Your task to perform on an android device: Search for flights from Helsinki to Tokyo Image 0: 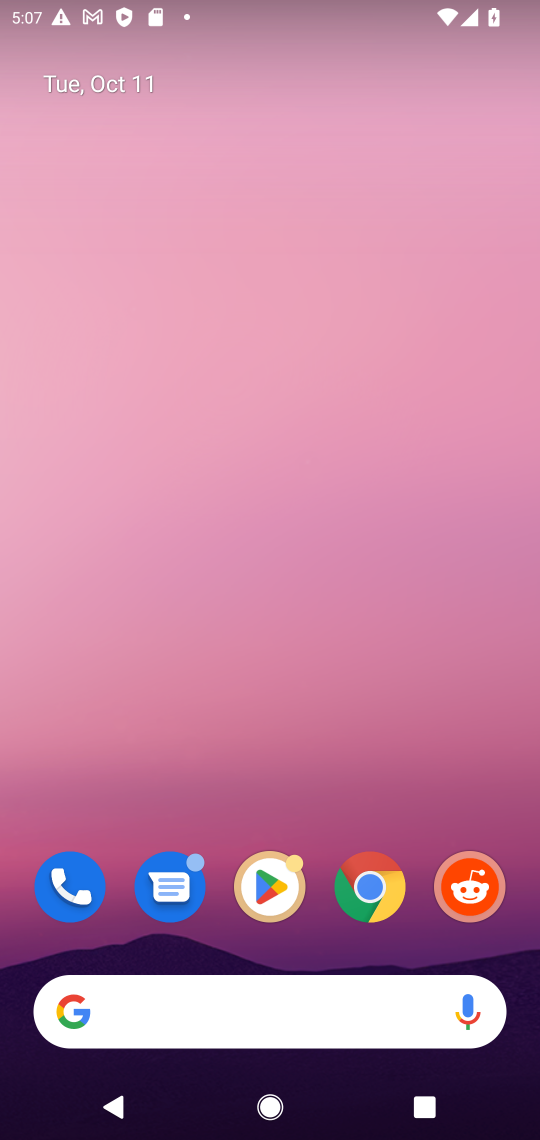
Step 0: click (303, 992)
Your task to perform on an android device: Search for flights from Helsinki to Tokyo Image 1: 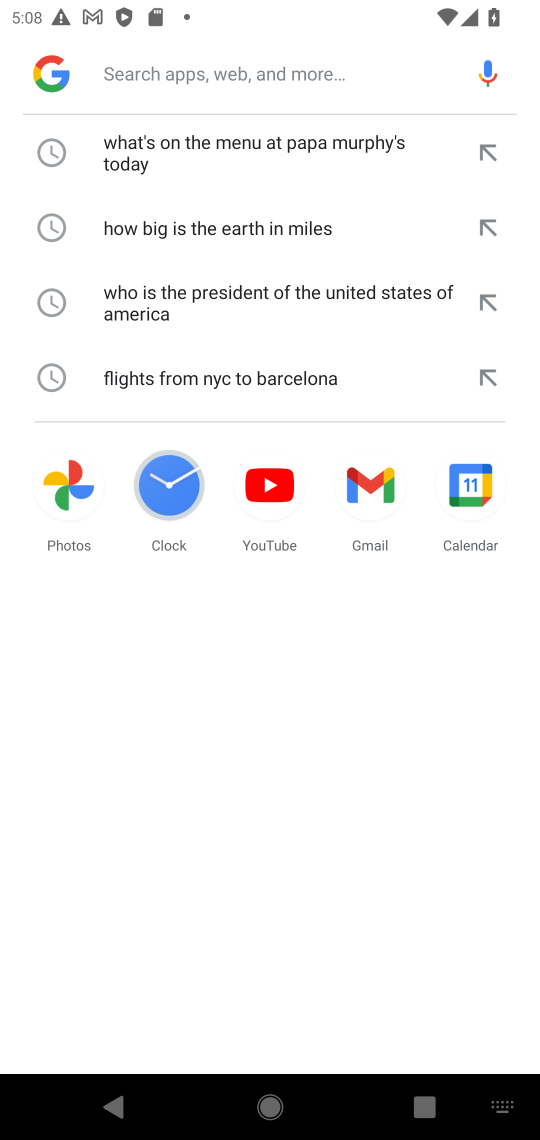
Step 1: click (164, 133)
Your task to perform on an android device: Search for flights from Helsinki to Tokyo Image 2: 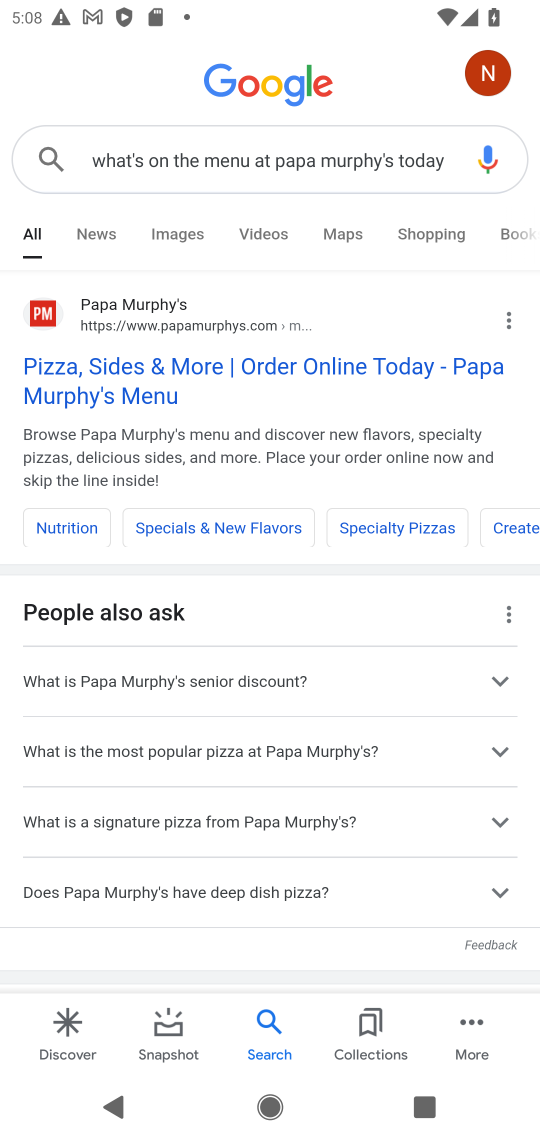
Step 2: click (258, 157)
Your task to perform on an android device: Search for flights from Helsinki to Tokyo Image 3: 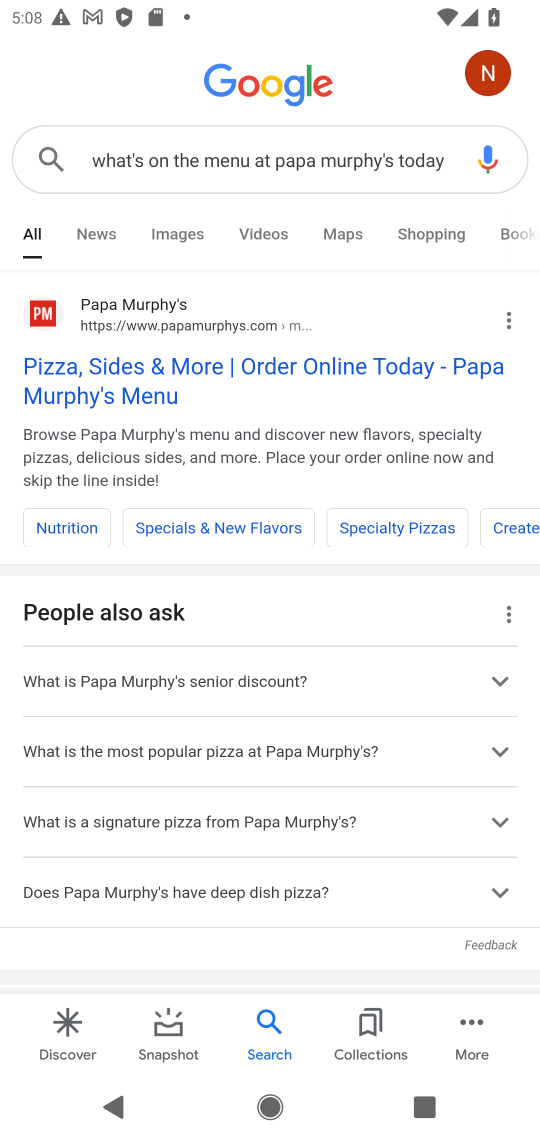
Step 3: click (258, 157)
Your task to perform on an android device: Search for flights from Helsinki to Tokyo Image 4: 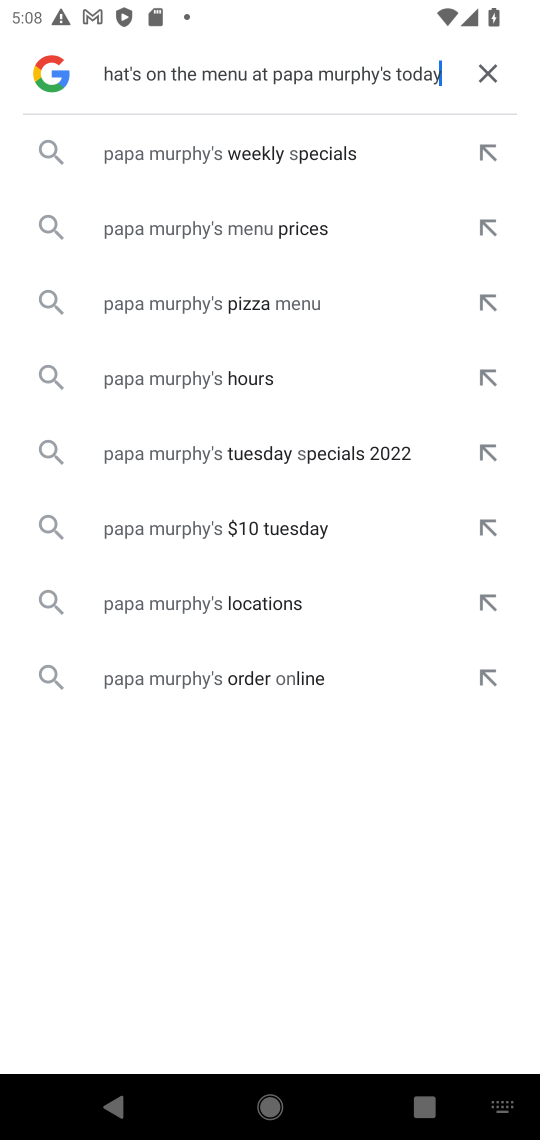
Step 4: click (478, 59)
Your task to perform on an android device: Search for flights from Helsinki to Tokyo Image 5: 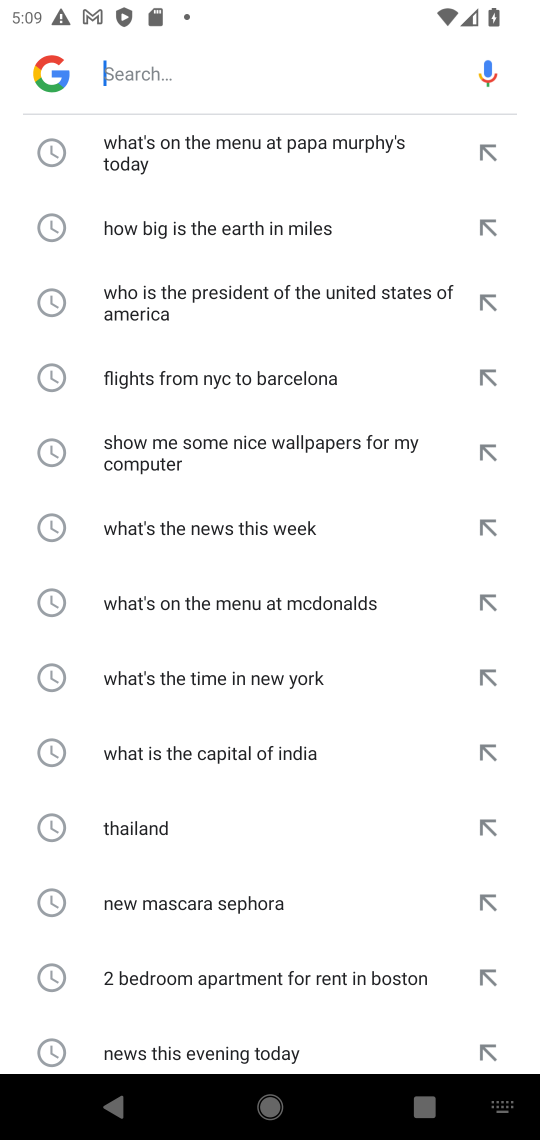
Step 5: type " flights from Helsinki to Tokyo"
Your task to perform on an android device: Search for flights from Helsinki to Tokyo Image 6: 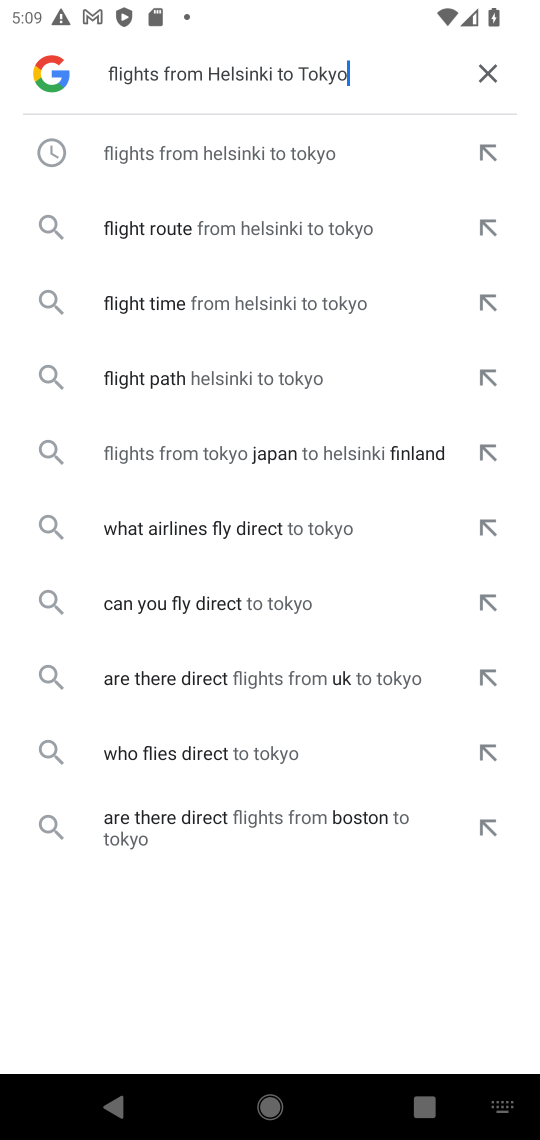
Step 6: click (258, 160)
Your task to perform on an android device: Search for flights from Helsinki to Tokyo Image 7: 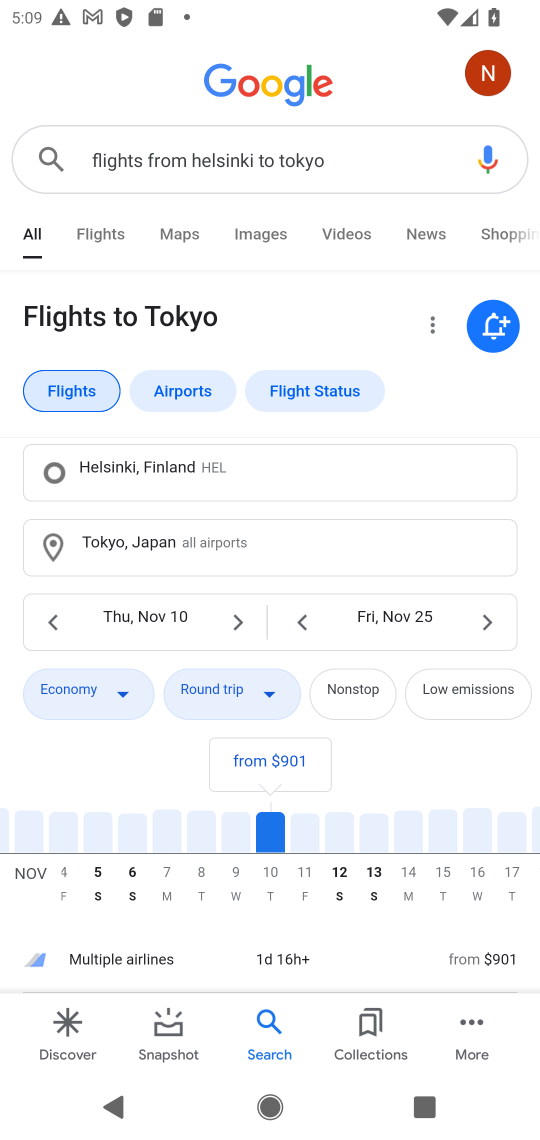
Step 7: task complete